Your task to perform on an android device: Open Youtube and go to the subscriptions tab Image 0: 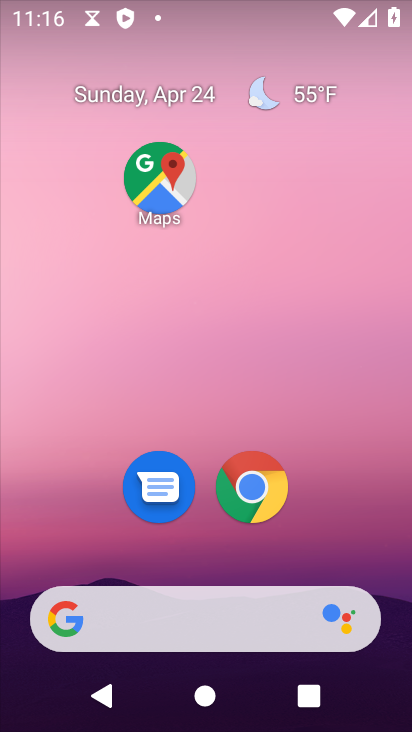
Step 0: drag from (279, 568) to (291, 218)
Your task to perform on an android device: Open Youtube and go to the subscriptions tab Image 1: 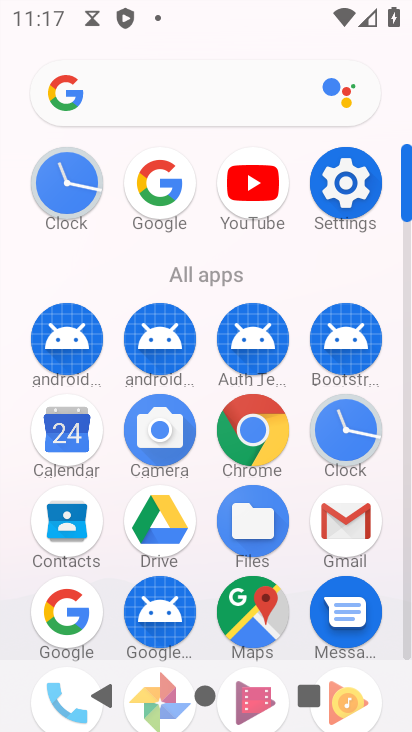
Step 1: click (262, 191)
Your task to perform on an android device: Open Youtube and go to the subscriptions tab Image 2: 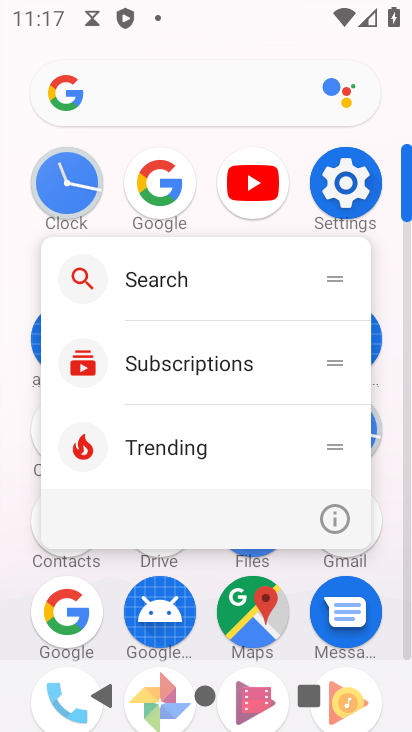
Step 2: click (211, 380)
Your task to perform on an android device: Open Youtube and go to the subscriptions tab Image 3: 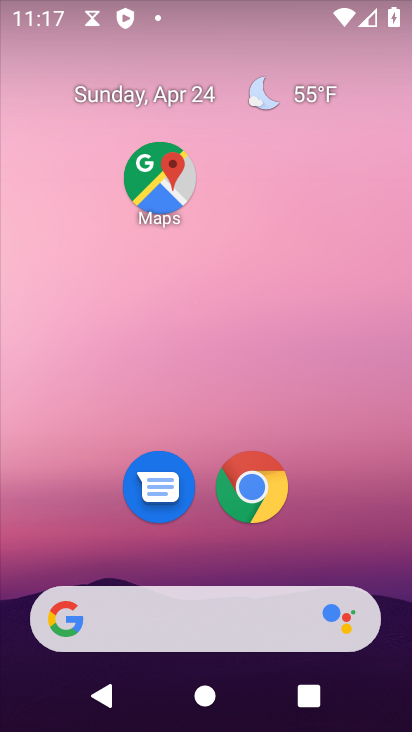
Step 3: drag from (230, 558) to (219, 186)
Your task to perform on an android device: Open Youtube and go to the subscriptions tab Image 4: 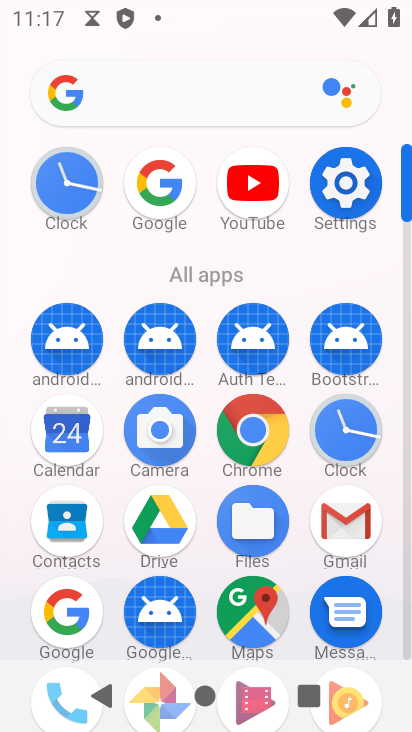
Step 4: click (251, 203)
Your task to perform on an android device: Open Youtube and go to the subscriptions tab Image 5: 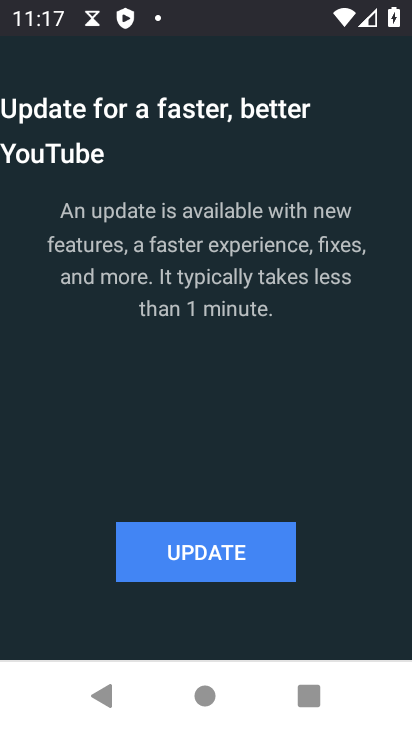
Step 5: click (107, 719)
Your task to perform on an android device: Open Youtube and go to the subscriptions tab Image 6: 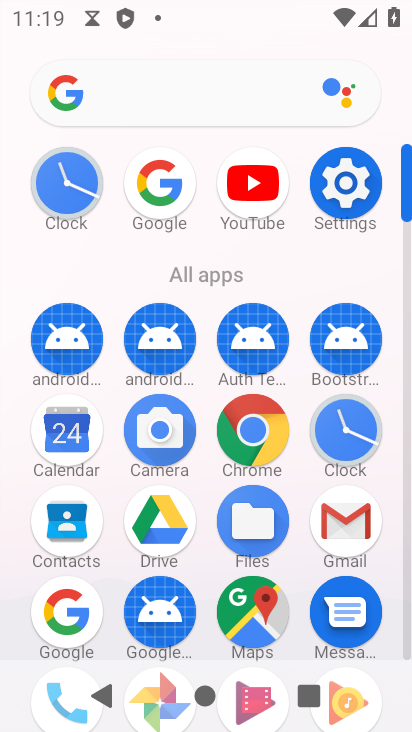
Step 6: click (272, 196)
Your task to perform on an android device: Open Youtube and go to the subscriptions tab Image 7: 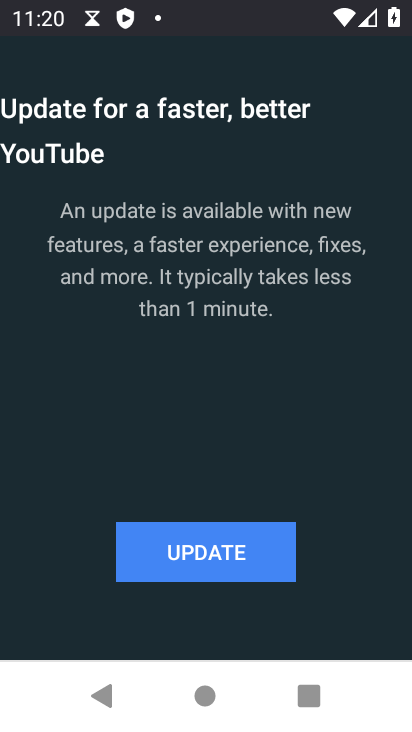
Step 7: task complete